Your task to perform on an android device: Go to Android settings Image 0: 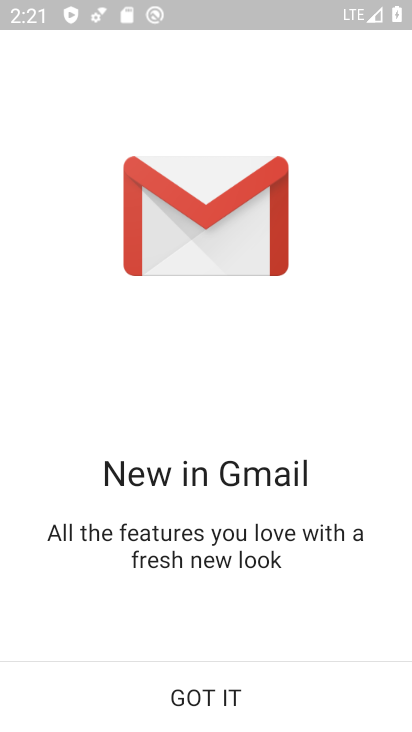
Step 0: press back button
Your task to perform on an android device: Go to Android settings Image 1: 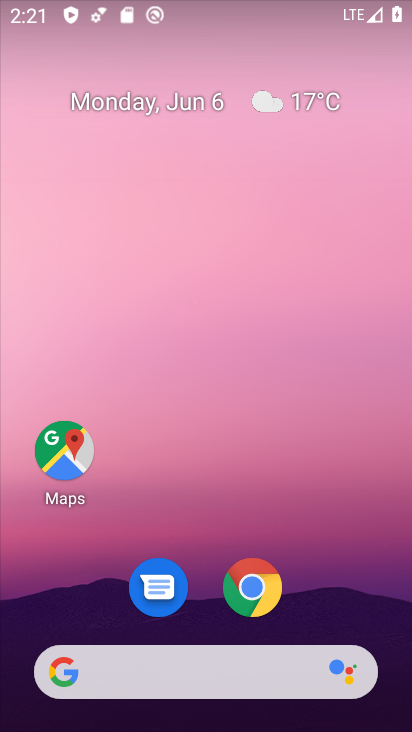
Step 1: drag from (273, 416) to (229, 56)
Your task to perform on an android device: Go to Android settings Image 2: 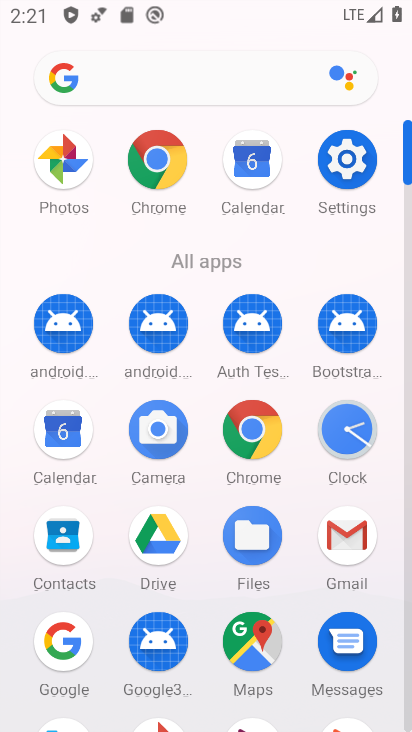
Step 2: click (348, 156)
Your task to perform on an android device: Go to Android settings Image 3: 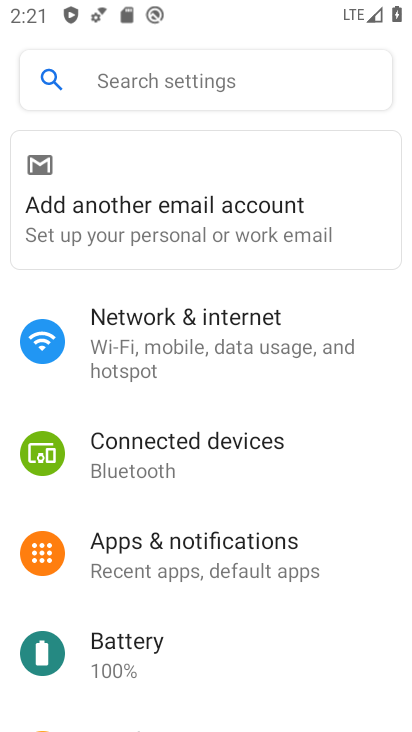
Step 3: task complete